Your task to perform on an android device: What's the weather? Image 0: 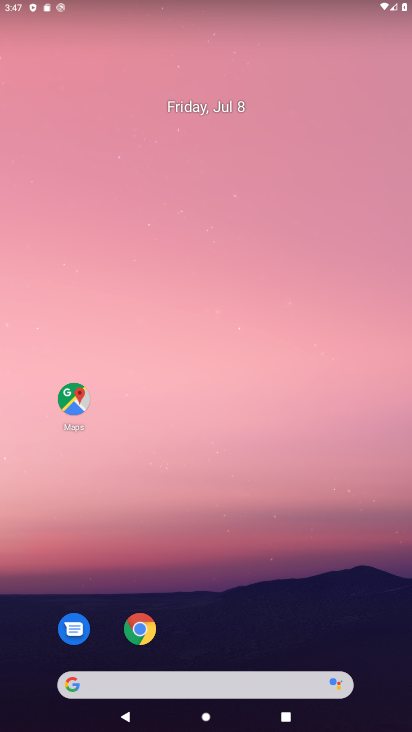
Step 0: drag from (204, 662) to (127, 16)
Your task to perform on an android device: What's the weather? Image 1: 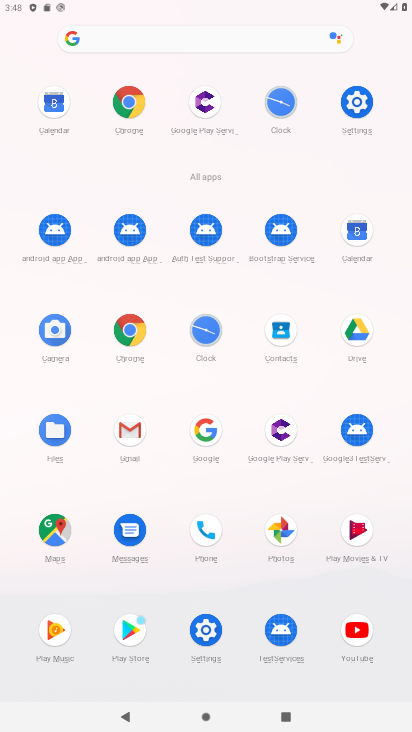
Step 1: click (202, 443)
Your task to perform on an android device: What's the weather? Image 2: 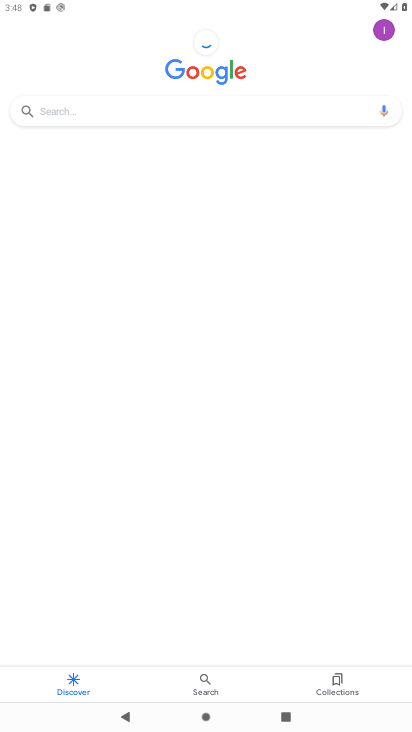
Step 2: click (179, 96)
Your task to perform on an android device: What's the weather? Image 3: 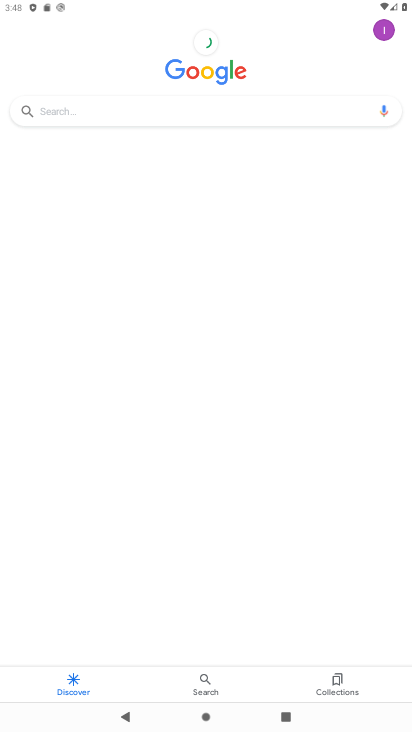
Step 3: click (150, 113)
Your task to perform on an android device: What's the weather? Image 4: 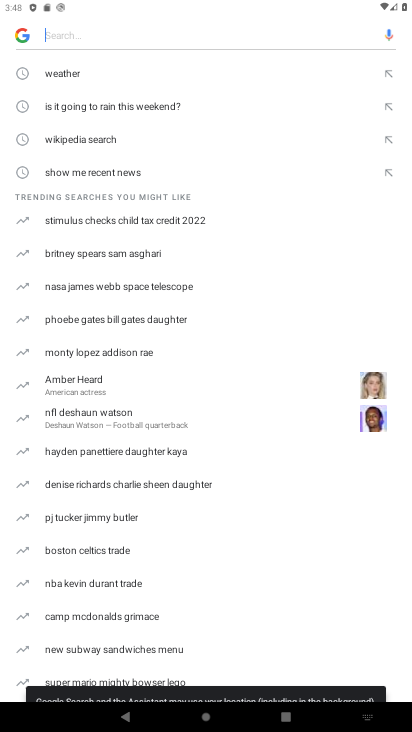
Step 4: click (49, 68)
Your task to perform on an android device: What's the weather? Image 5: 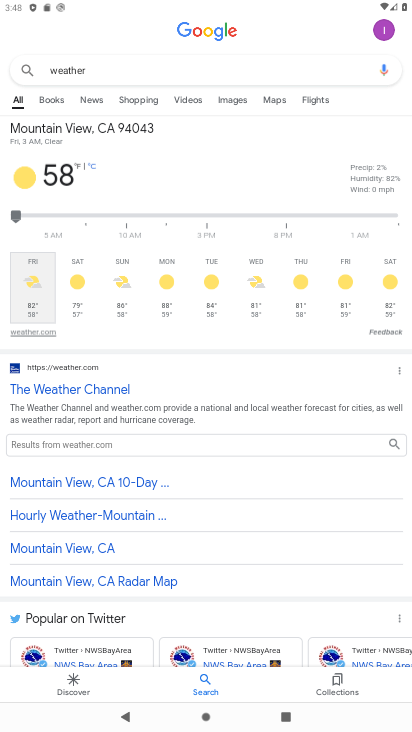
Step 5: task complete